Your task to perform on an android device: Go to internet settings Image 0: 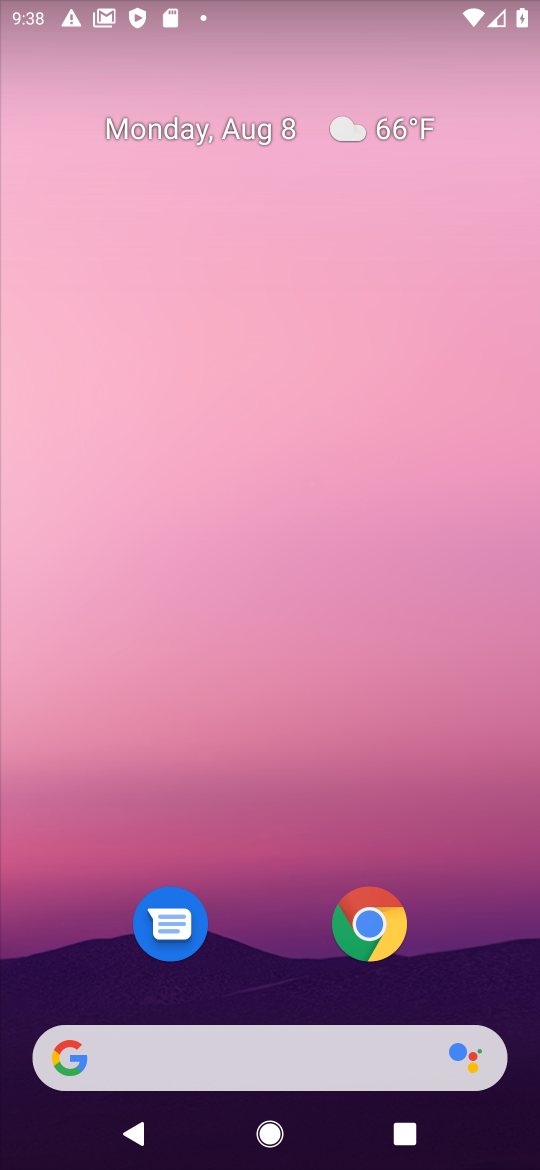
Step 0: drag from (262, 941) to (360, 105)
Your task to perform on an android device: Go to internet settings Image 1: 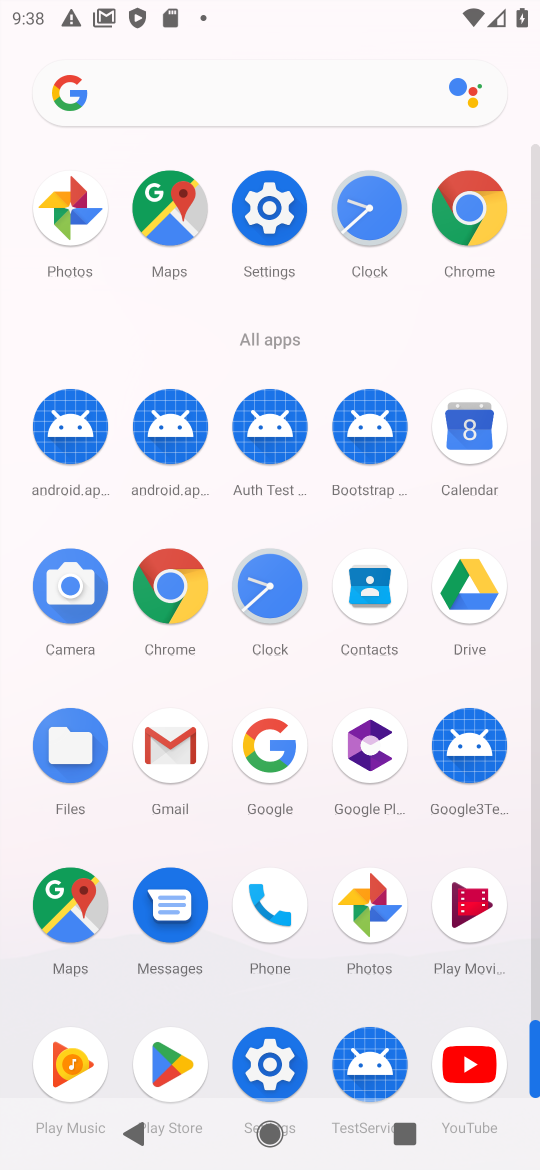
Step 1: click (262, 1045)
Your task to perform on an android device: Go to internet settings Image 2: 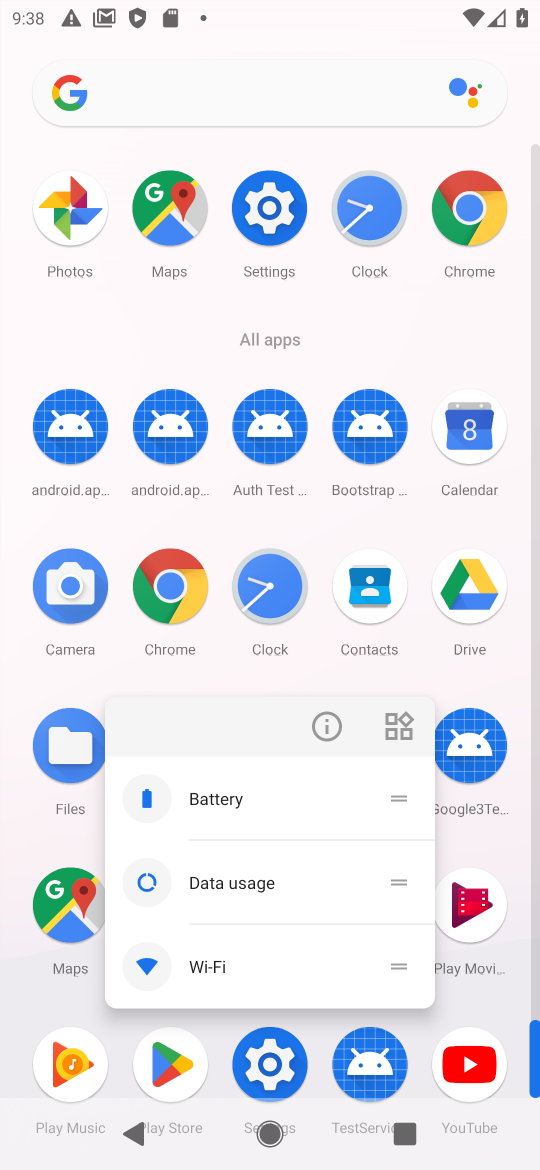
Step 2: click (275, 1049)
Your task to perform on an android device: Go to internet settings Image 3: 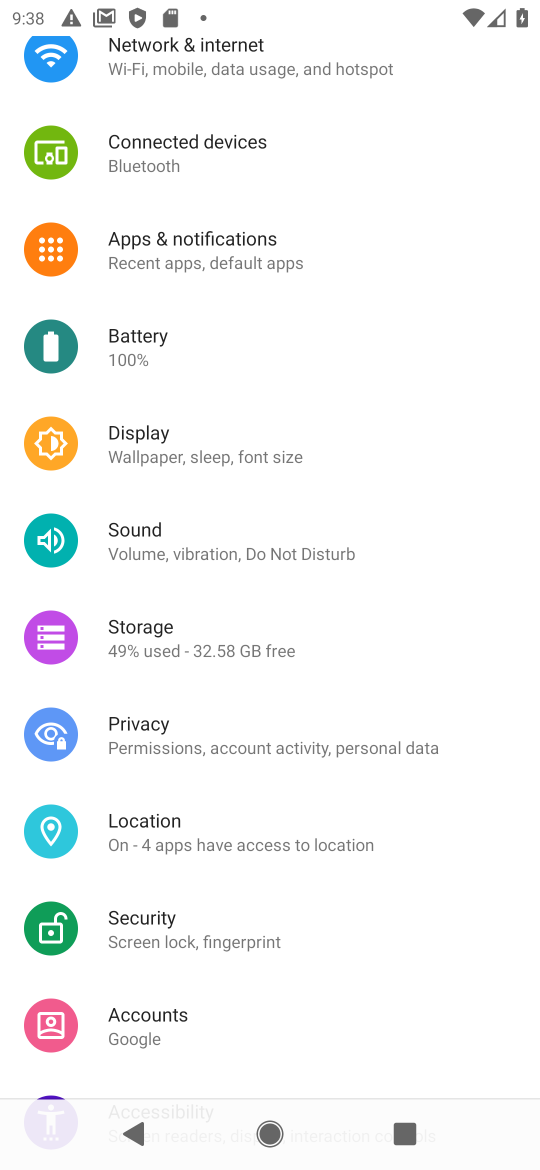
Step 3: drag from (220, 389) to (172, 947)
Your task to perform on an android device: Go to internet settings Image 4: 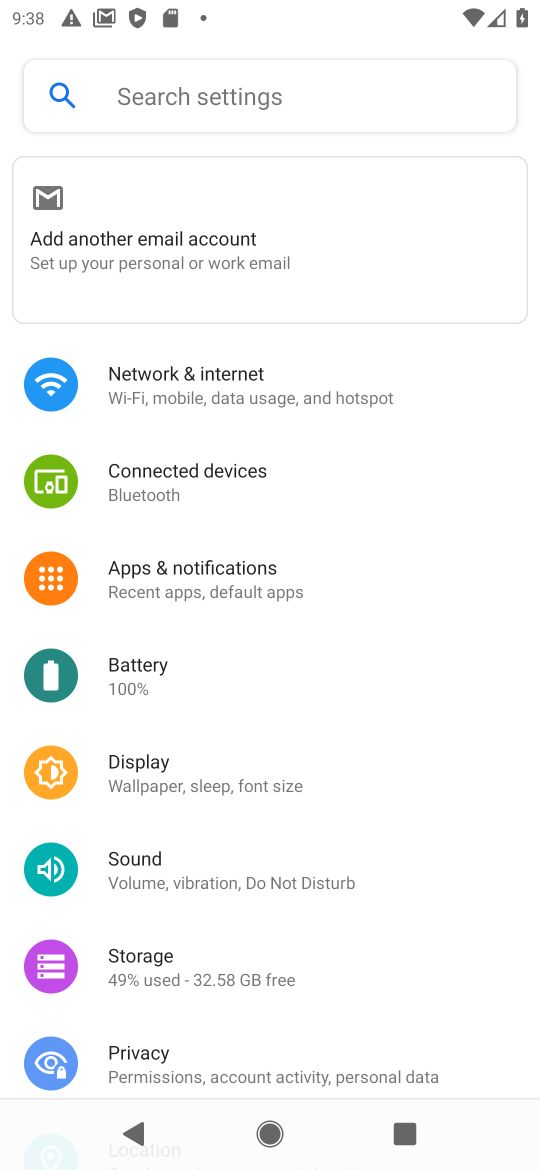
Step 4: click (214, 389)
Your task to perform on an android device: Go to internet settings Image 5: 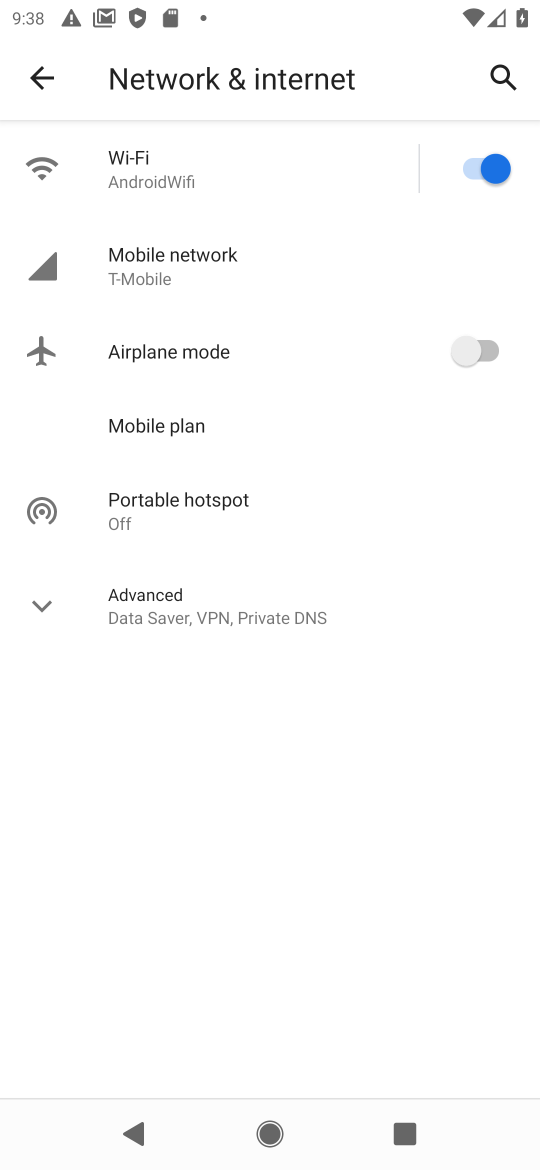
Step 5: task complete